Your task to perform on an android device: toggle data saver in the chrome app Image 0: 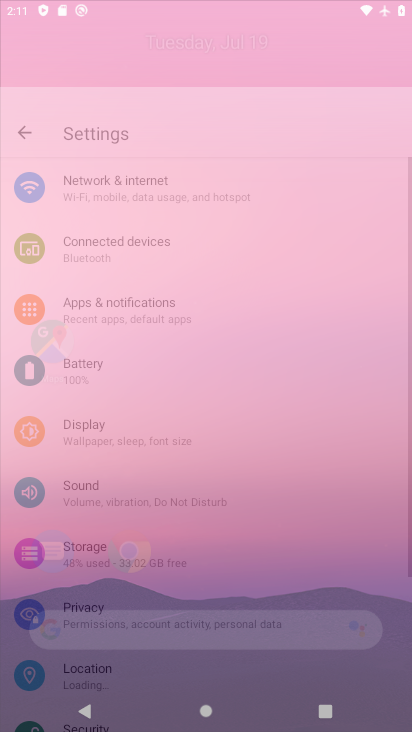
Step 0: press home button
Your task to perform on an android device: toggle data saver in the chrome app Image 1: 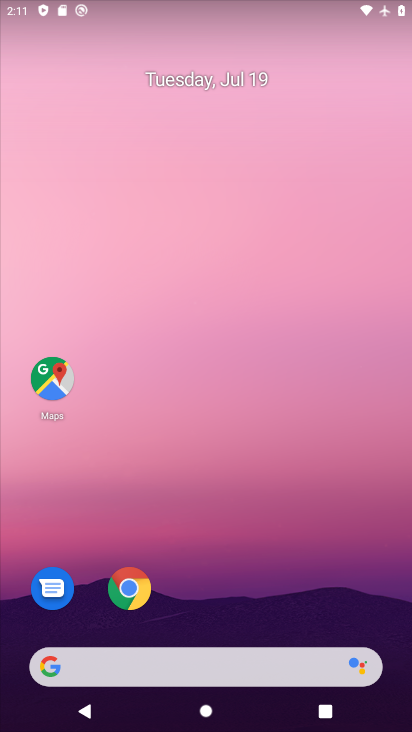
Step 1: drag from (232, 567) to (241, 60)
Your task to perform on an android device: toggle data saver in the chrome app Image 2: 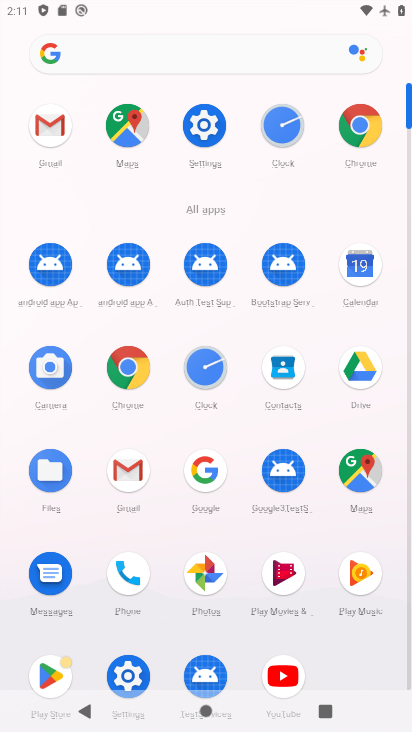
Step 2: click (368, 120)
Your task to perform on an android device: toggle data saver in the chrome app Image 3: 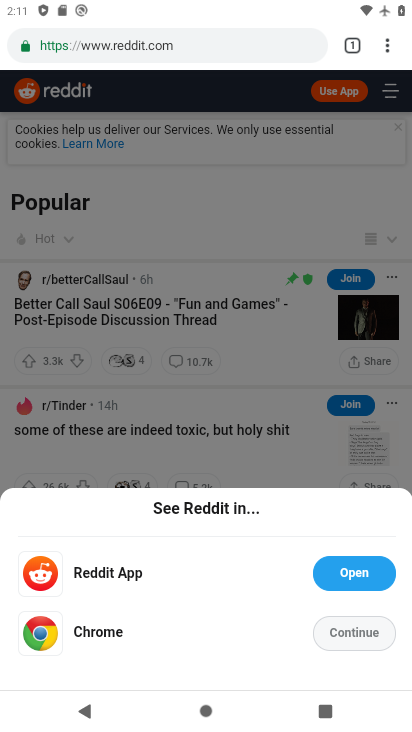
Step 3: drag from (390, 49) to (210, 507)
Your task to perform on an android device: toggle data saver in the chrome app Image 4: 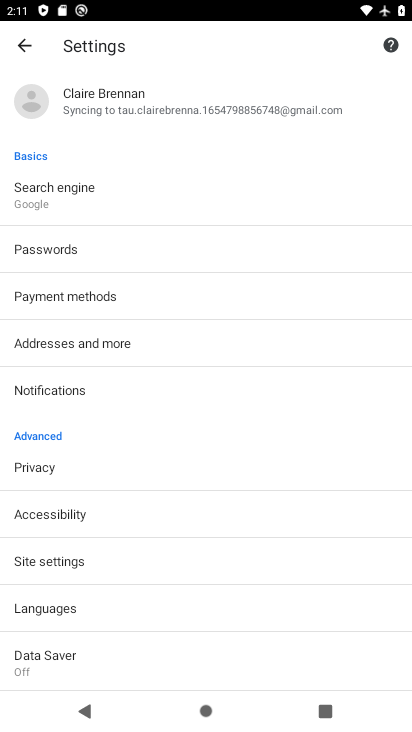
Step 4: click (42, 658)
Your task to perform on an android device: toggle data saver in the chrome app Image 5: 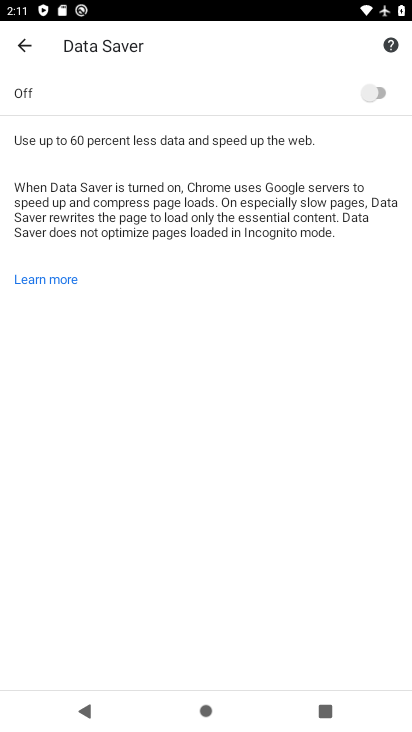
Step 5: click (370, 87)
Your task to perform on an android device: toggle data saver in the chrome app Image 6: 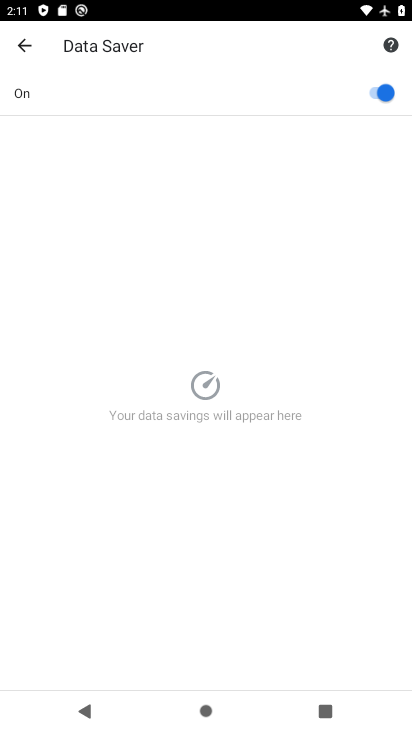
Step 6: task complete